Your task to perform on an android device: Go to Google Image 0: 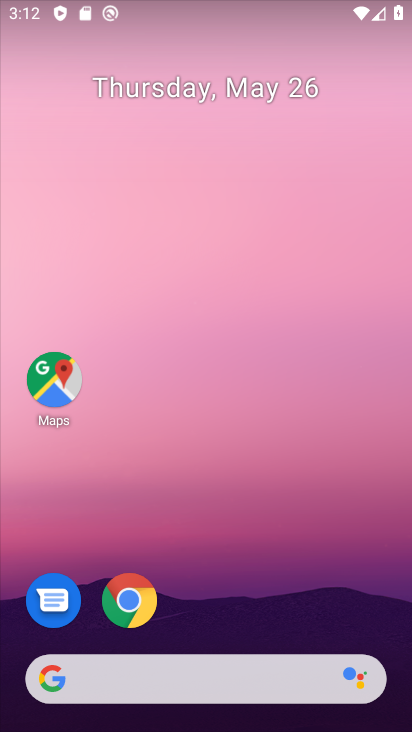
Step 0: drag from (232, 622) to (255, 116)
Your task to perform on an android device: Go to Google Image 1: 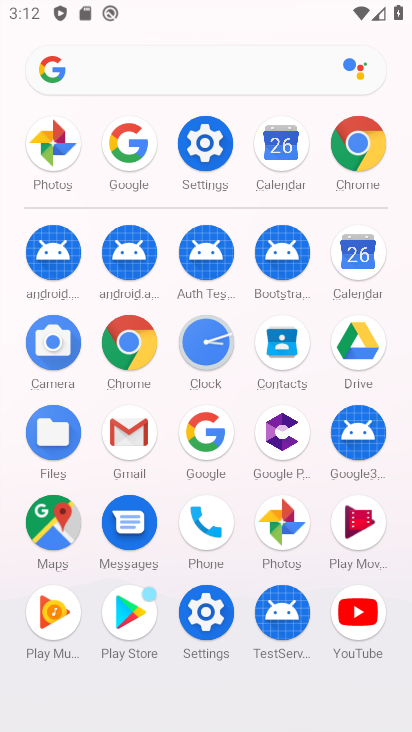
Step 1: drag from (201, 520) to (204, 196)
Your task to perform on an android device: Go to Google Image 2: 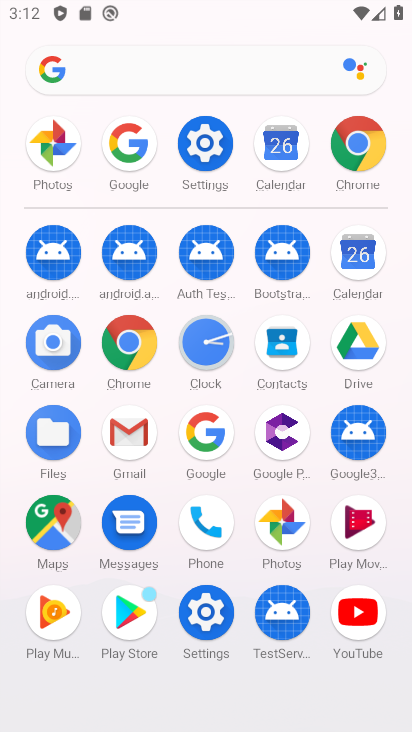
Step 2: click (131, 138)
Your task to perform on an android device: Go to Google Image 3: 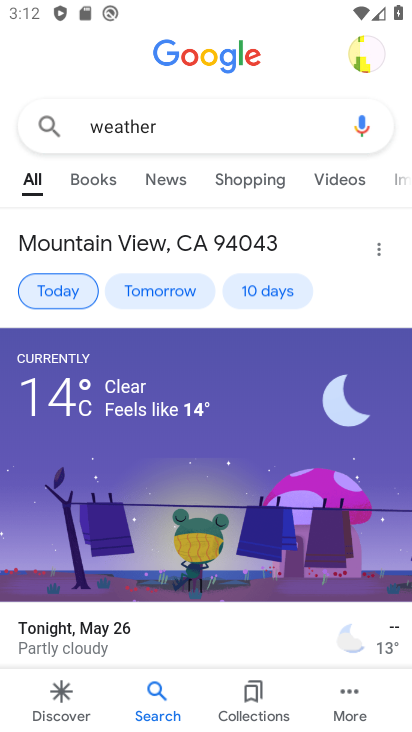
Step 3: task complete